Your task to perform on an android device: View the shopping cart on target.com. Image 0: 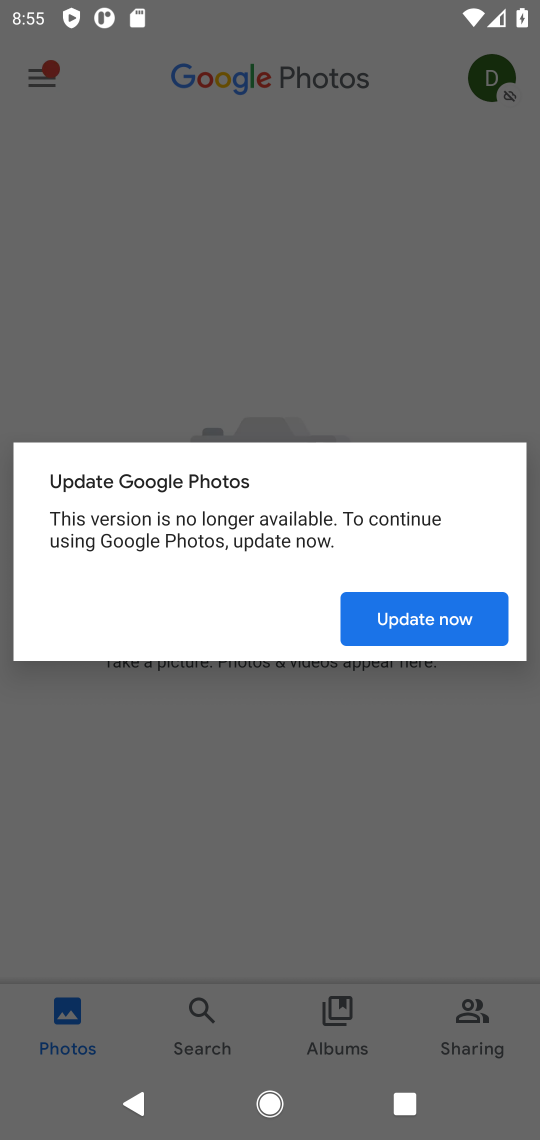
Step 0: press home button
Your task to perform on an android device: View the shopping cart on target.com. Image 1: 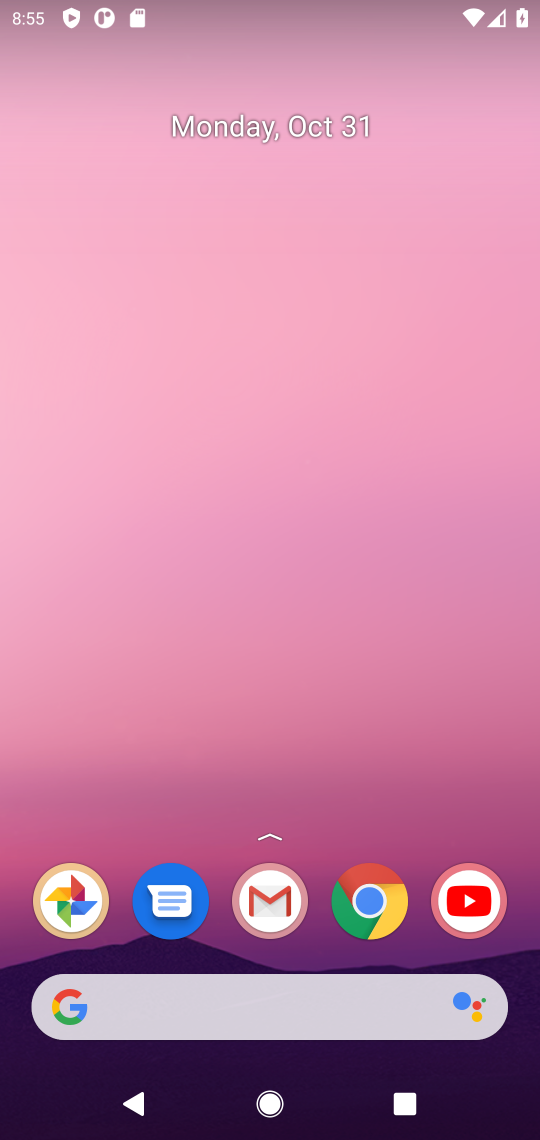
Step 1: drag from (187, 1043) to (204, 347)
Your task to perform on an android device: View the shopping cart on target.com. Image 2: 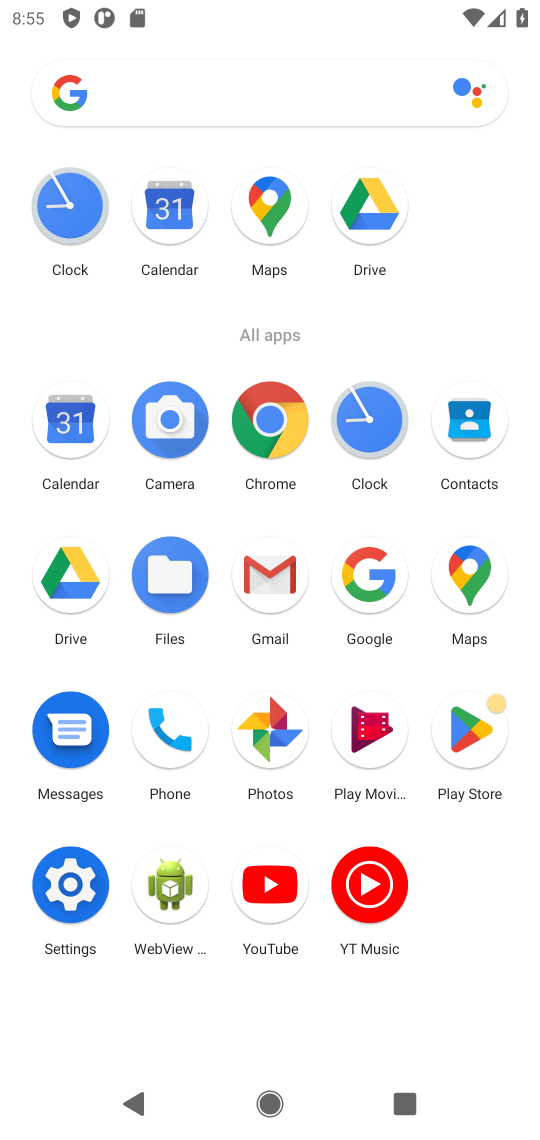
Step 2: click (369, 577)
Your task to perform on an android device: View the shopping cart on target.com. Image 3: 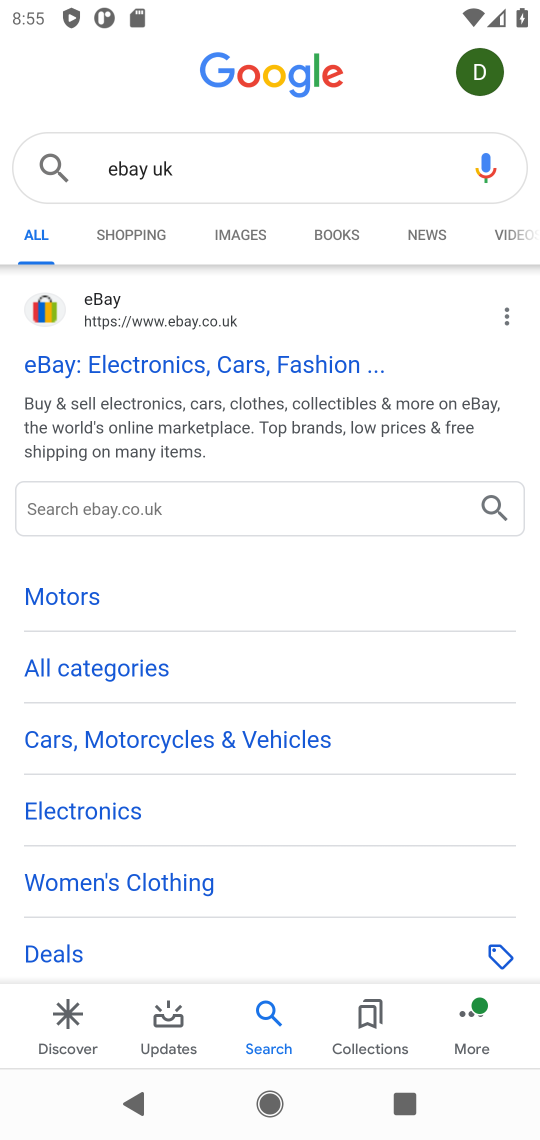
Step 3: click (249, 165)
Your task to perform on an android device: View the shopping cart on target.com. Image 4: 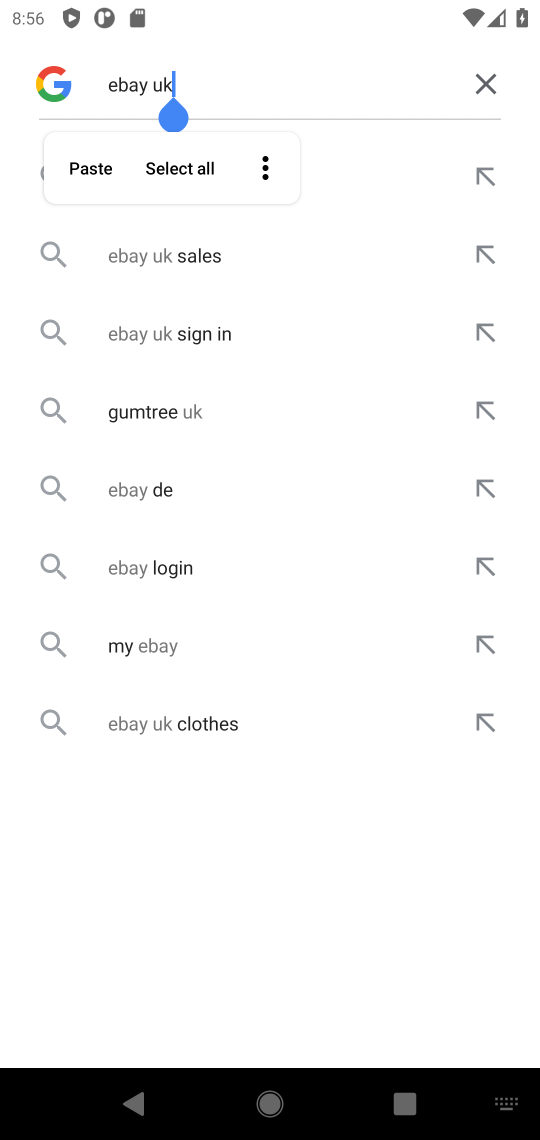
Step 4: click (469, 79)
Your task to perform on an android device: View the shopping cart on target.com. Image 5: 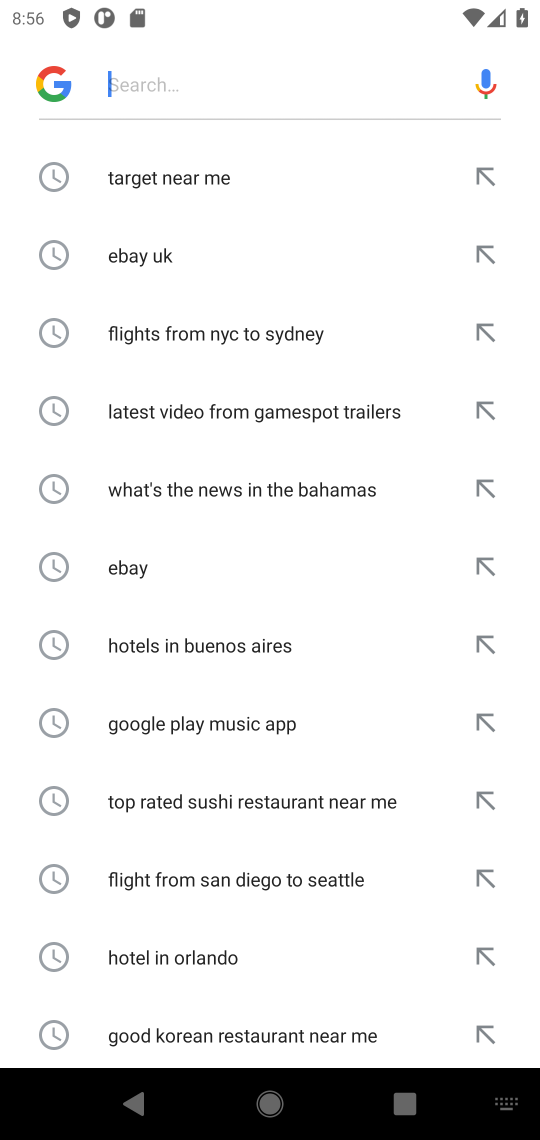
Step 5: click (164, 175)
Your task to perform on an android device: View the shopping cart on target.com. Image 6: 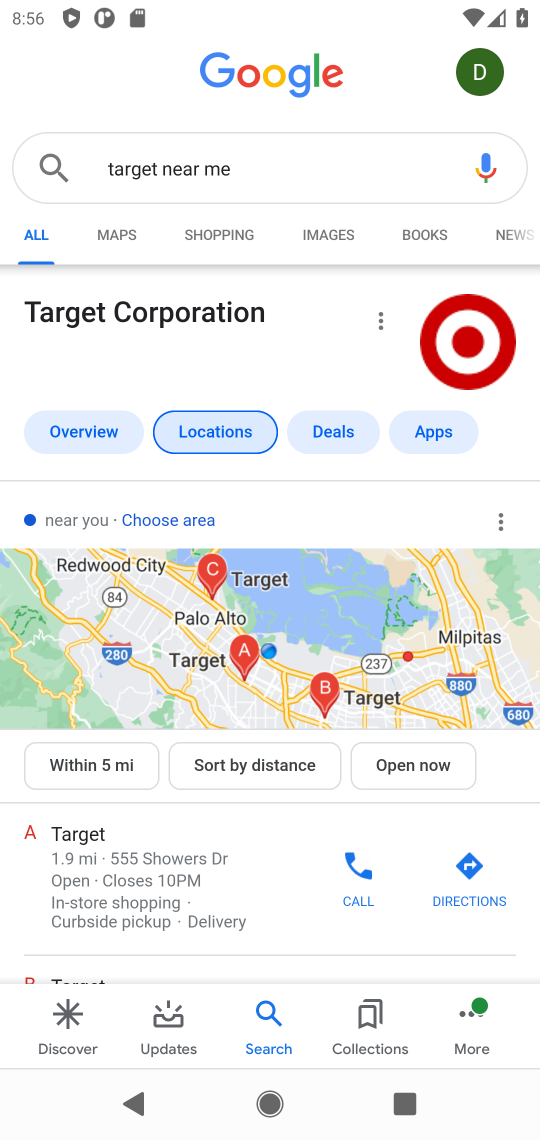
Step 6: drag from (140, 863) to (202, 173)
Your task to perform on an android device: View the shopping cart on target.com. Image 7: 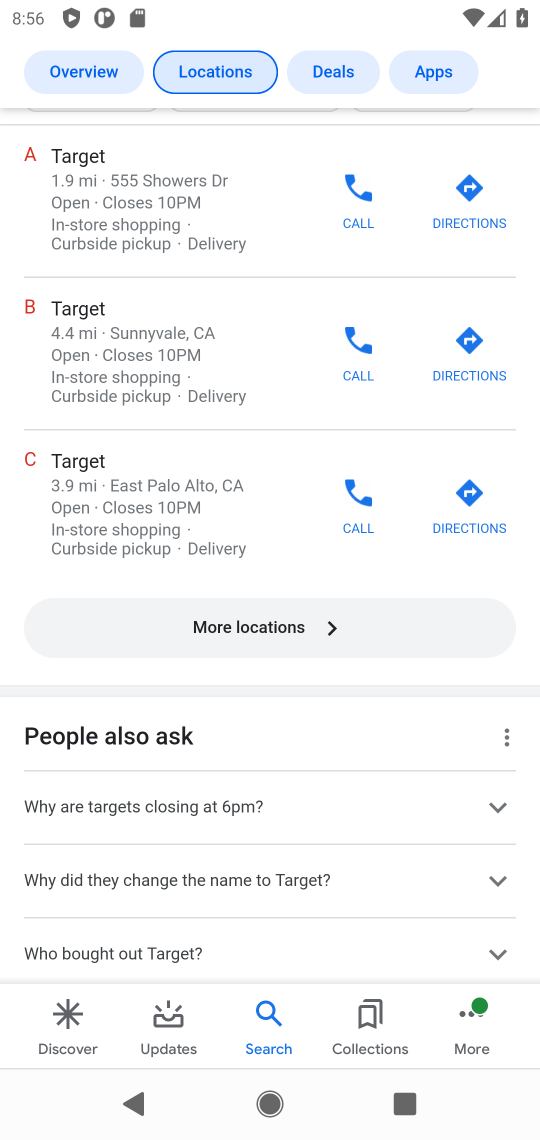
Step 7: drag from (98, 837) to (169, 187)
Your task to perform on an android device: View the shopping cart on target.com. Image 8: 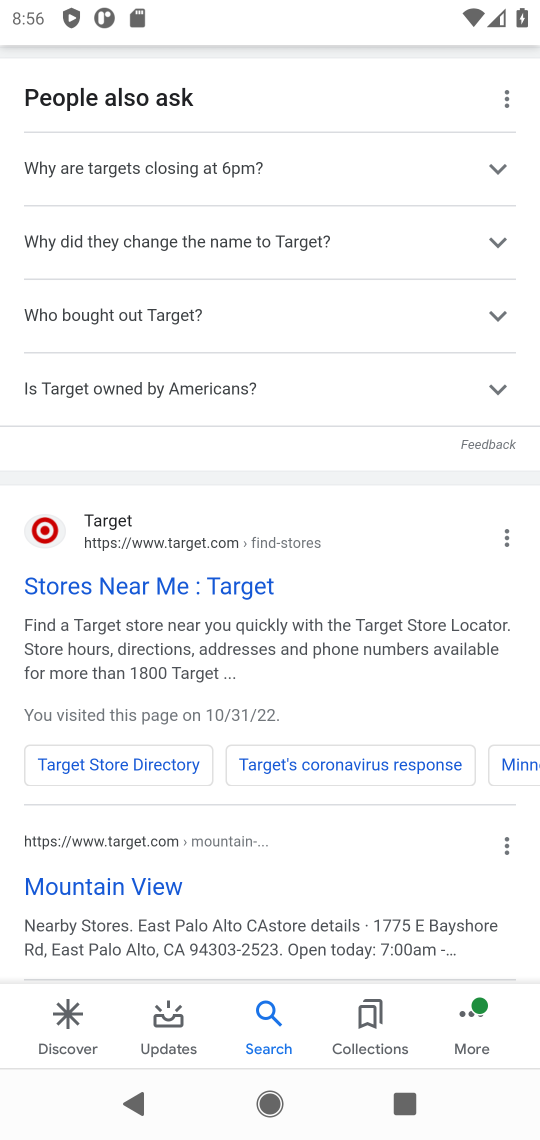
Step 8: click (39, 526)
Your task to perform on an android device: View the shopping cart on target.com. Image 9: 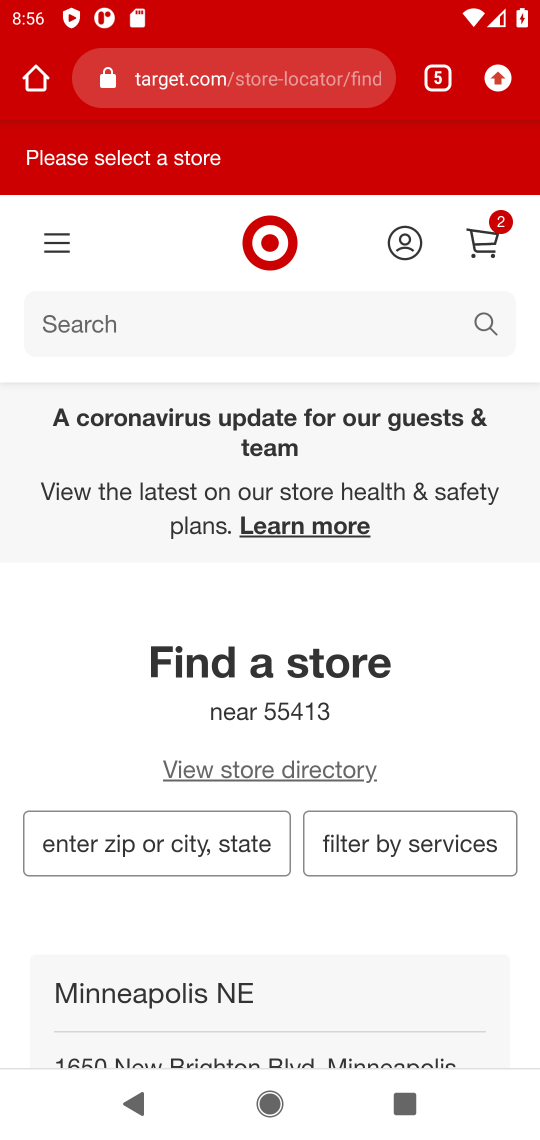
Step 9: click (479, 237)
Your task to perform on an android device: View the shopping cart on target.com. Image 10: 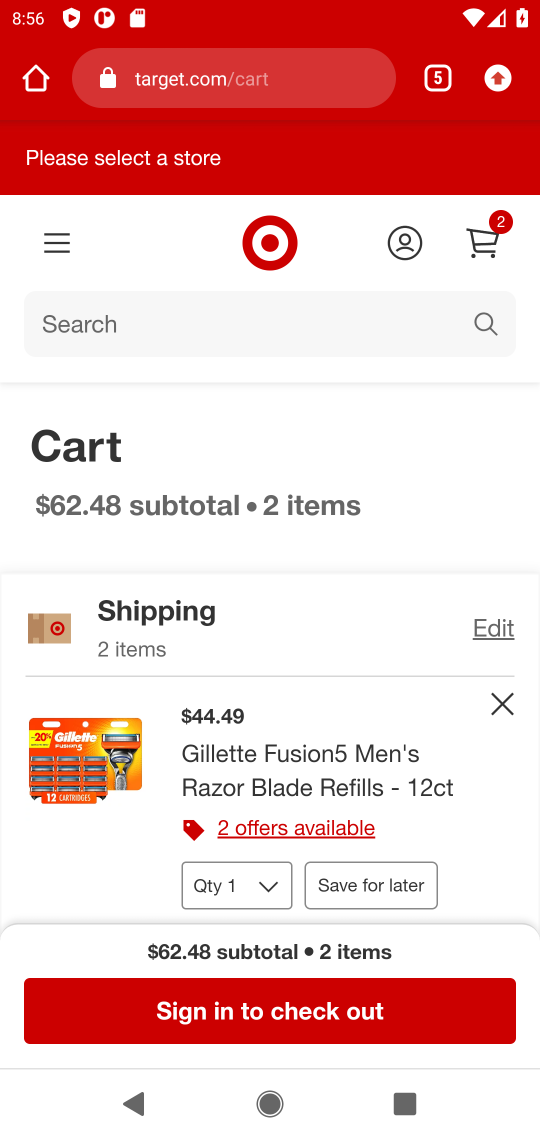
Step 10: task complete